Your task to perform on an android device: toggle notification dots Image 0: 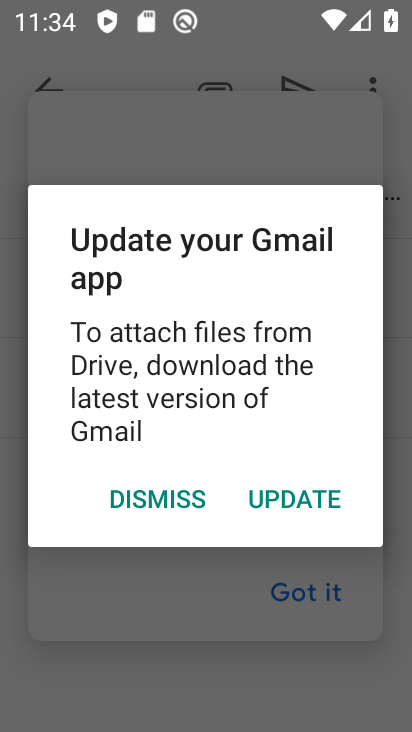
Step 0: press home button
Your task to perform on an android device: toggle notification dots Image 1: 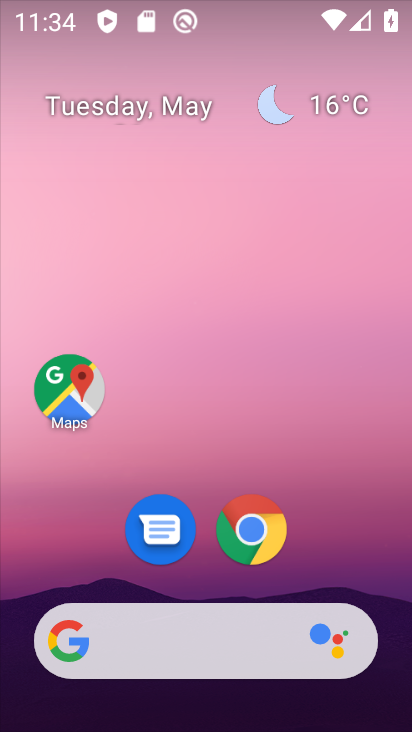
Step 1: drag from (150, 312) to (214, 93)
Your task to perform on an android device: toggle notification dots Image 2: 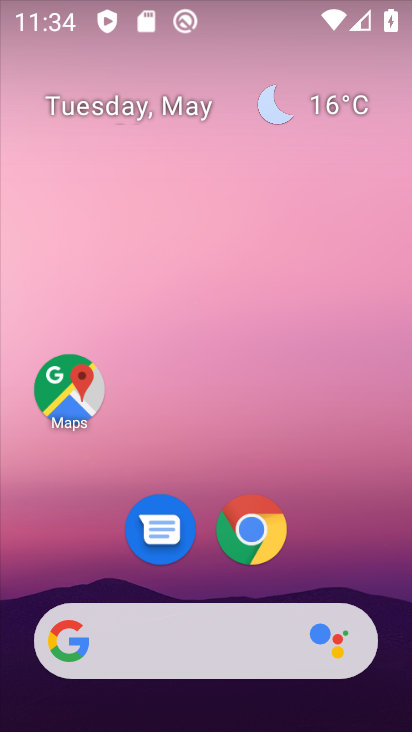
Step 2: drag from (160, 593) to (274, 70)
Your task to perform on an android device: toggle notification dots Image 3: 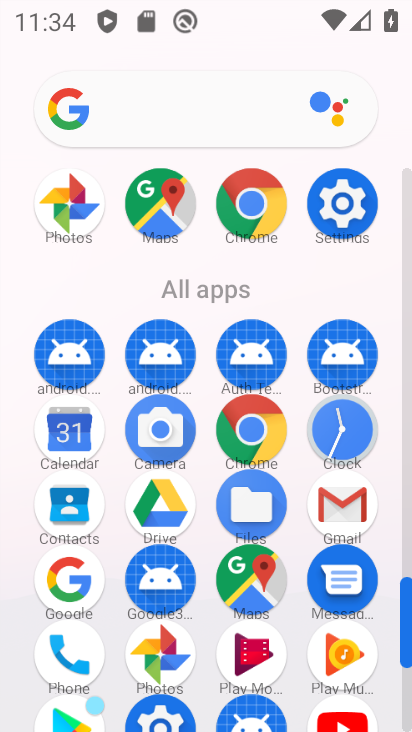
Step 3: drag from (242, 607) to (310, 219)
Your task to perform on an android device: toggle notification dots Image 4: 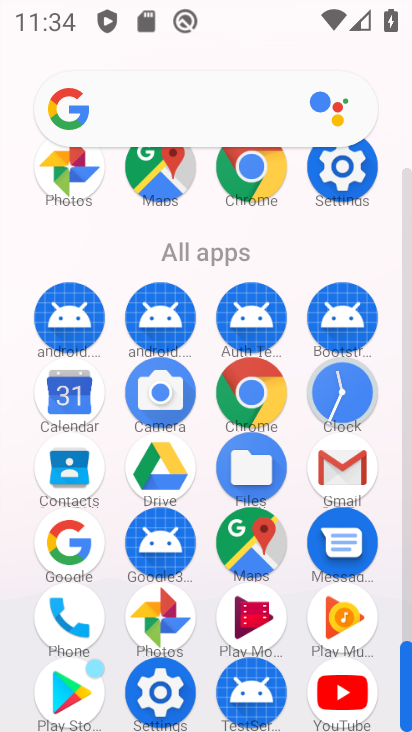
Step 4: click (171, 712)
Your task to perform on an android device: toggle notification dots Image 5: 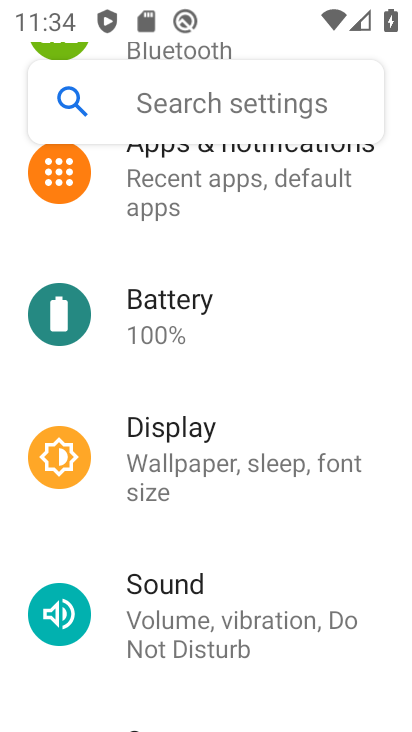
Step 5: click (297, 192)
Your task to perform on an android device: toggle notification dots Image 6: 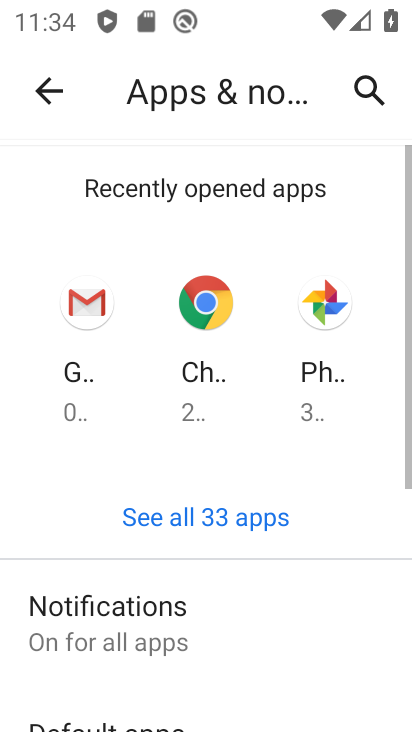
Step 6: drag from (211, 702) to (253, 433)
Your task to perform on an android device: toggle notification dots Image 7: 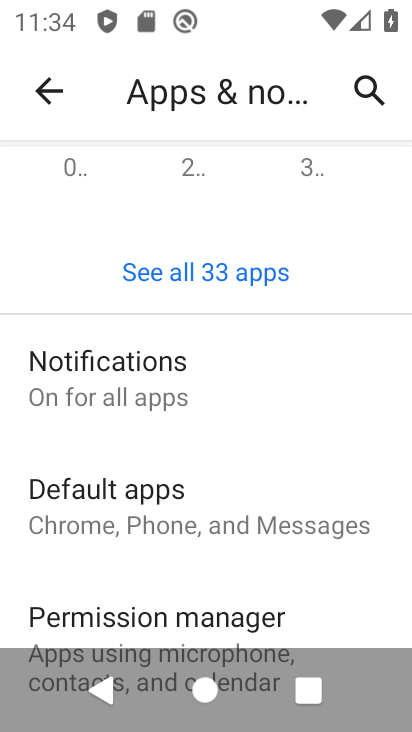
Step 7: click (194, 376)
Your task to perform on an android device: toggle notification dots Image 8: 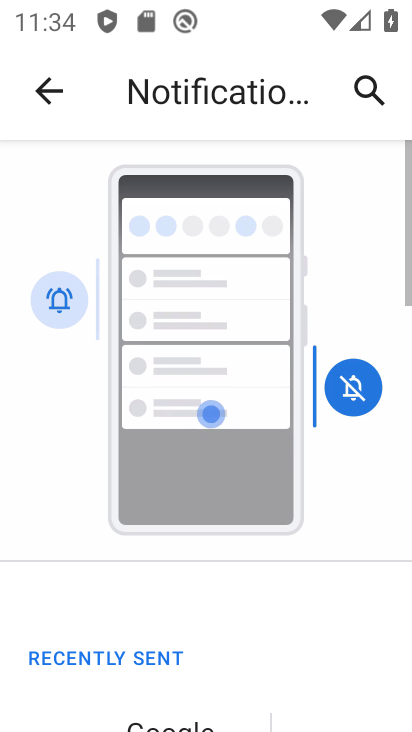
Step 8: drag from (192, 610) to (321, 96)
Your task to perform on an android device: toggle notification dots Image 9: 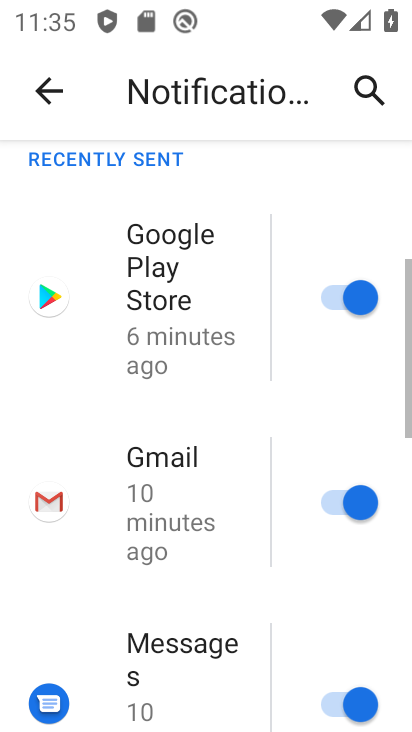
Step 9: drag from (197, 633) to (311, 93)
Your task to perform on an android device: toggle notification dots Image 10: 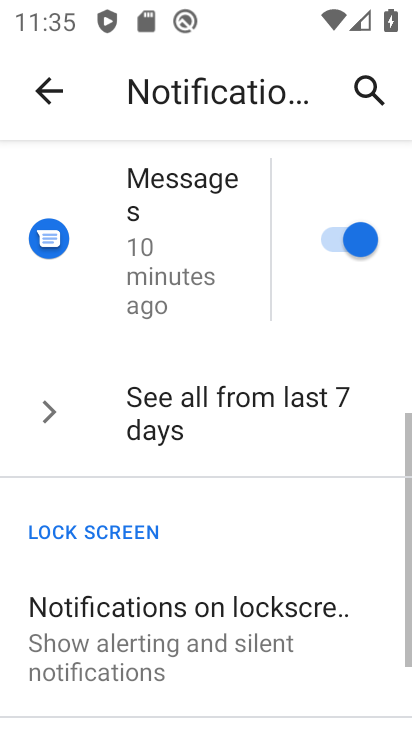
Step 10: drag from (219, 671) to (297, 213)
Your task to perform on an android device: toggle notification dots Image 11: 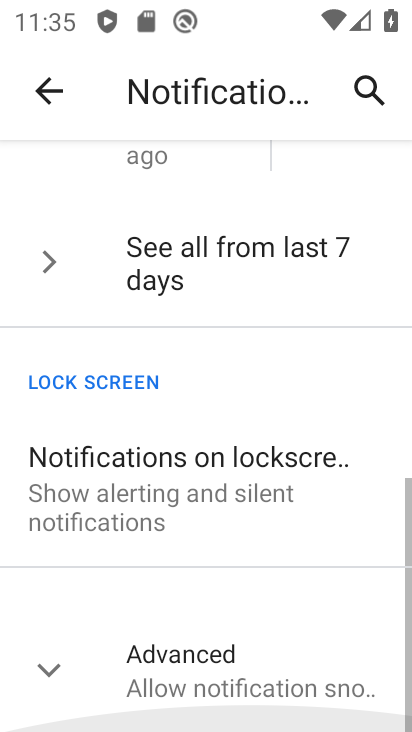
Step 11: click (252, 677)
Your task to perform on an android device: toggle notification dots Image 12: 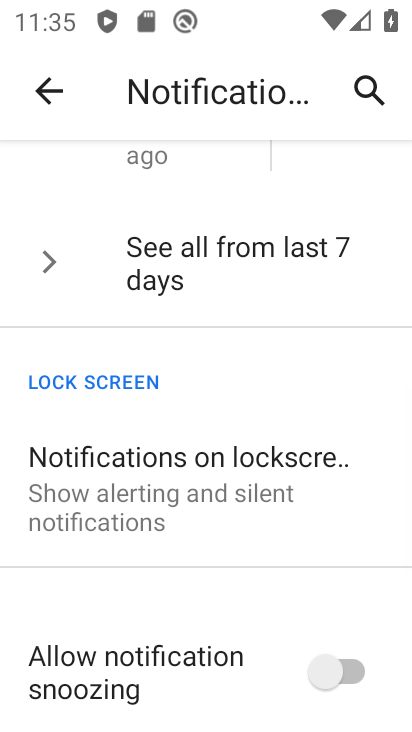
Step 12: drag from (223, 723) to (314, 300)
Your task to perform on an android device: toggle notification dots Image 13: 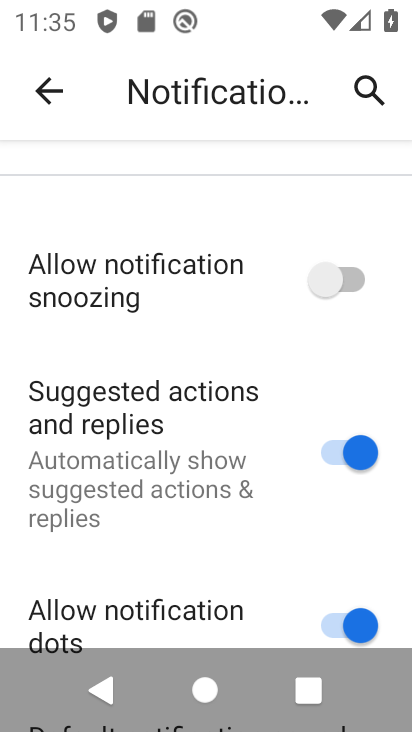
Step 13: drag from (232, 571) to (295, 356)
Your task to perform on an android device: toggle notification dots Image 14: 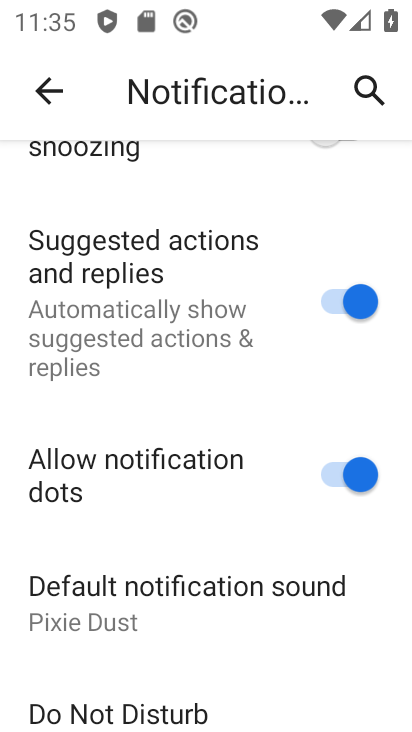
Step 14: click (326, 462)
Your task to perform on an android device: toggle notification dots Image 15: 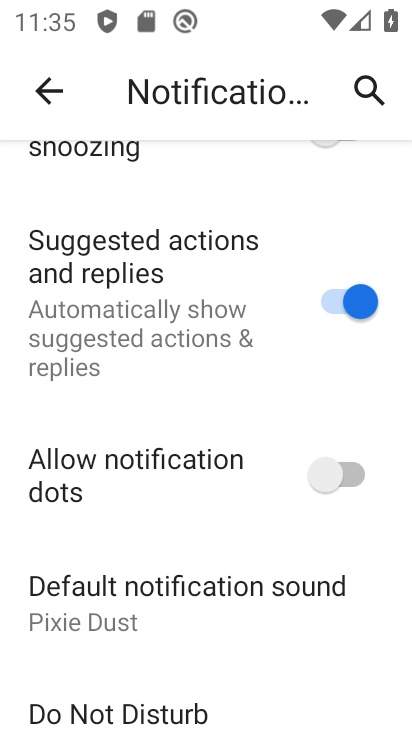
Step 15: task complete